Your task to perform on an android device: change the upload size in google photos Image 0: 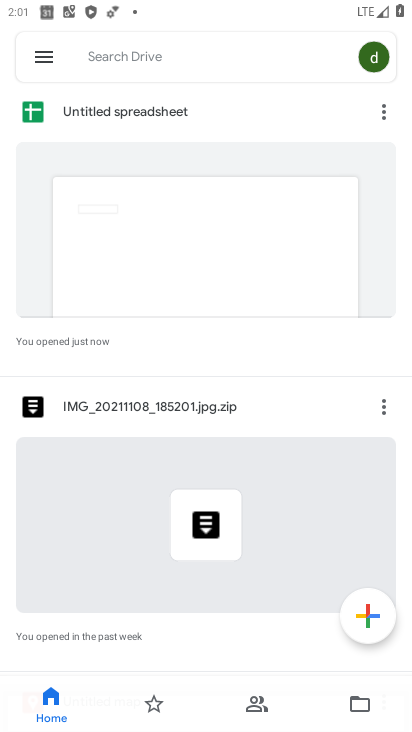
Step 0: press home button
Your task to perform on an android device: change the upload size in google photos Image 1: 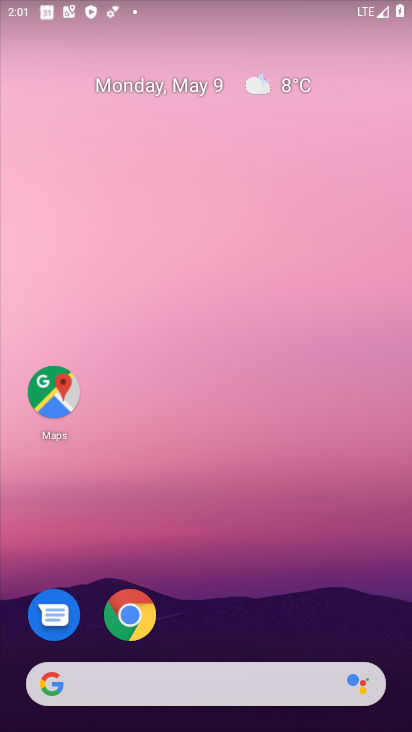
Step 1: drag from (368, 621) to (219, 141)
Your task to perform on an android device: change the upload size in google photos Image 2: 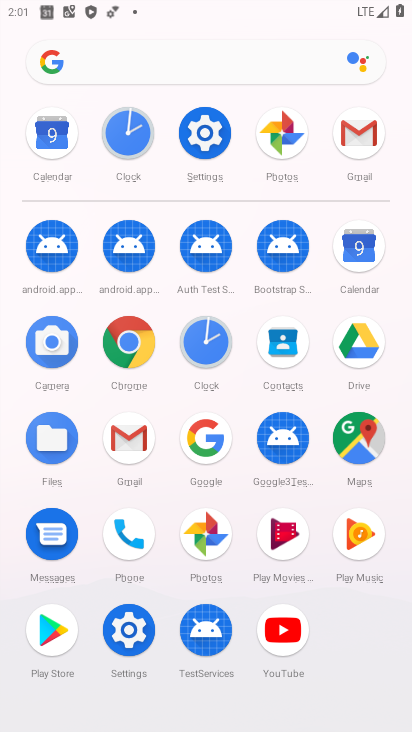
Step 2: click (205, 536)
Your task to perform on an android device: change the upload size in google photos Image 3: 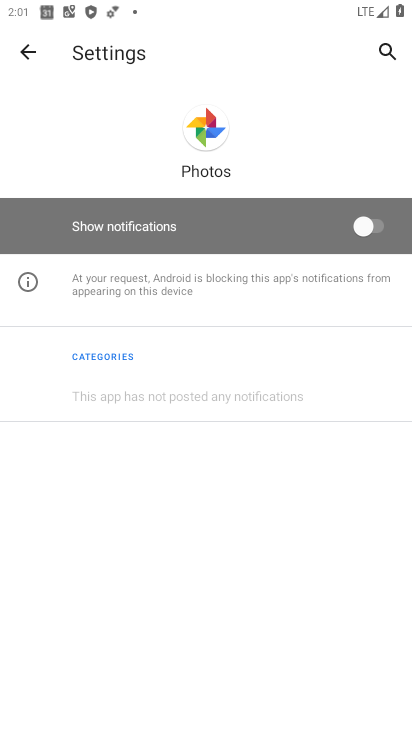
Step 3: press back button
Your task to perform on an android device: change the upload size in google photos Image 4: 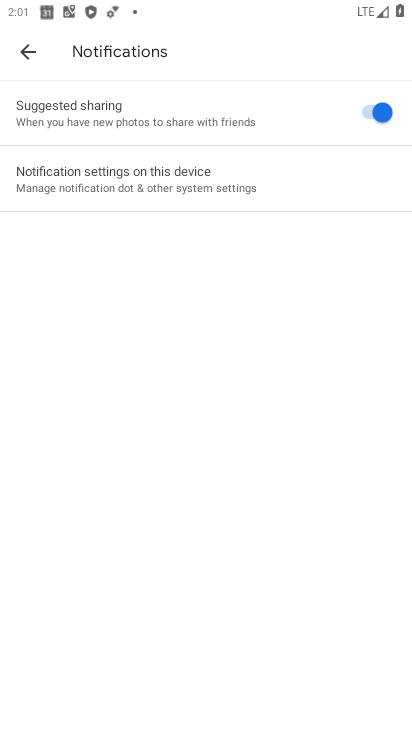
Step 4: press back button
Your task to perform on an android device: change the upload size in google photos Image 5: 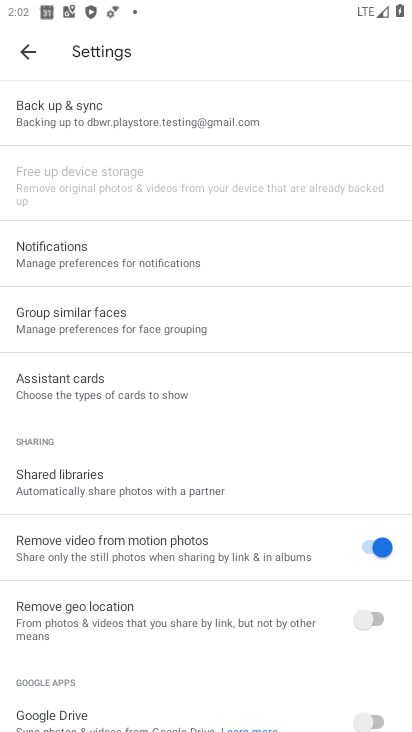
Step 5: click (46, 108)
Your task to perform on an android device: change the upload size in google photos Image 6: 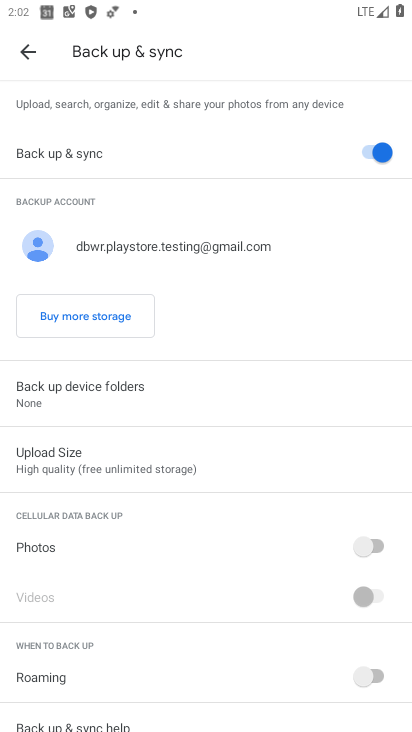
Step 6: click (43, 466)
Your task to perform on an android device: change the upload size in google photos Image 7: 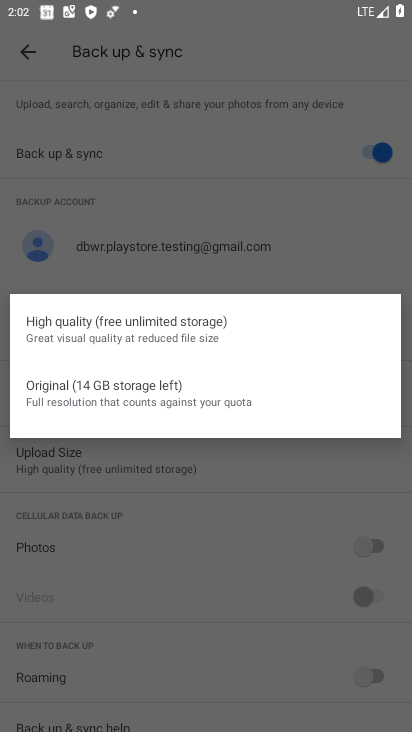
Step 7: click (75, 378)
Your task to perform on an android device: change the upload size in google photos Image 8: 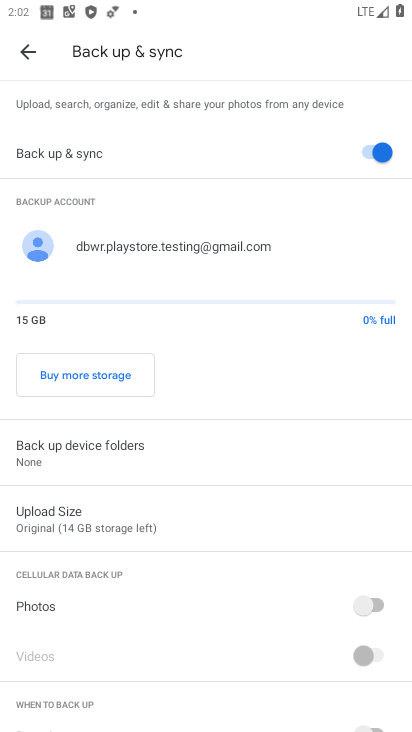
Step 8: task complete